Your task to perform on an android device: turn off location Image 0: 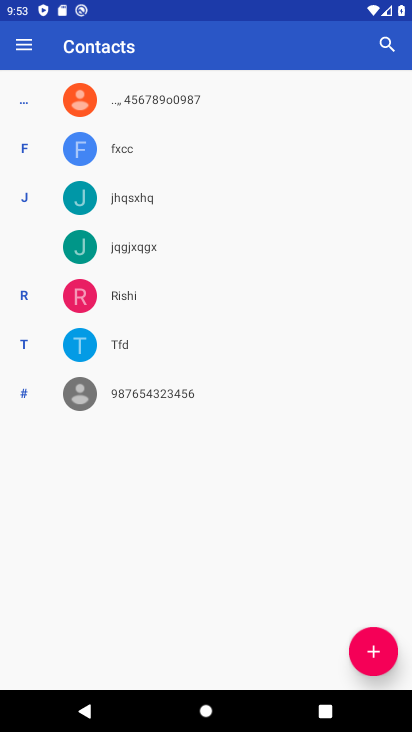
Step 0: press home button
Your task to perform on an android device: turn off location Image 1: 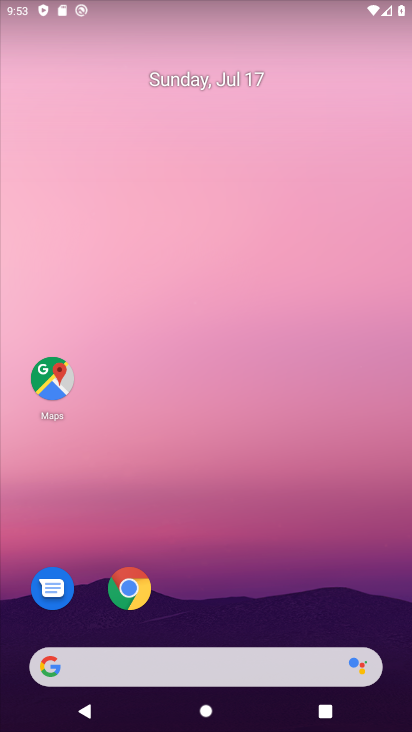
Step 1: drag from (308, 600) to (243, 168)
Your task to perform on an android device: turn off location Image 2: 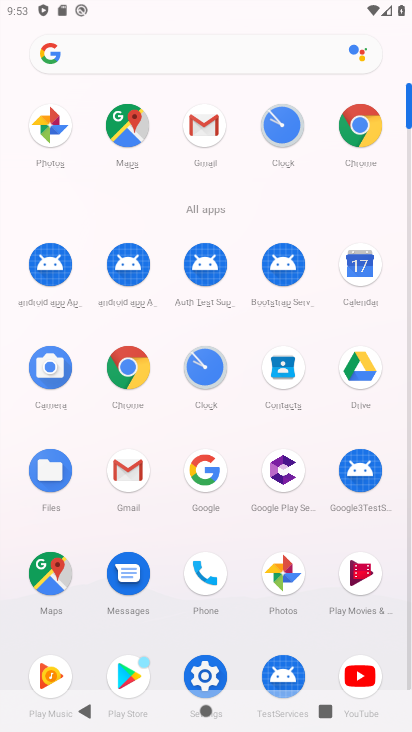
Step 2: click (210, 667)
Your task to perform on an android device: turn off location Image 3: 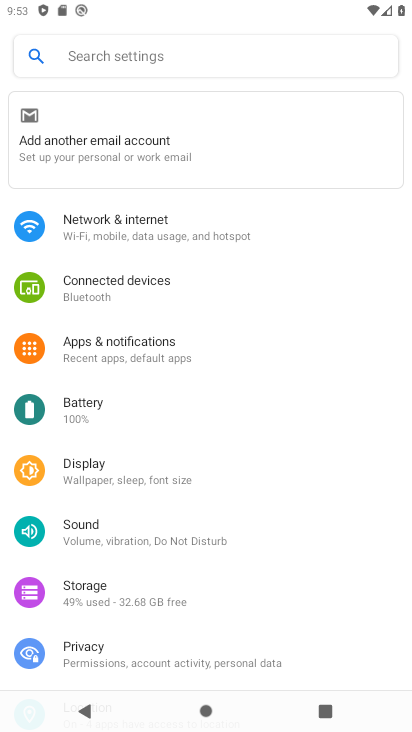
Step 3: drag from (278, 599) to (260, 232)
Your task to perform on an android device: turn off location Image 4: 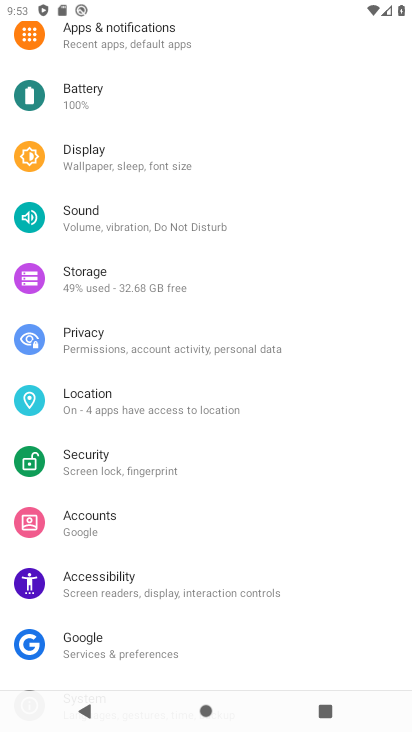
Step 4: click (249, 393)
Your task to perform on an android device: turn off location Image 5: 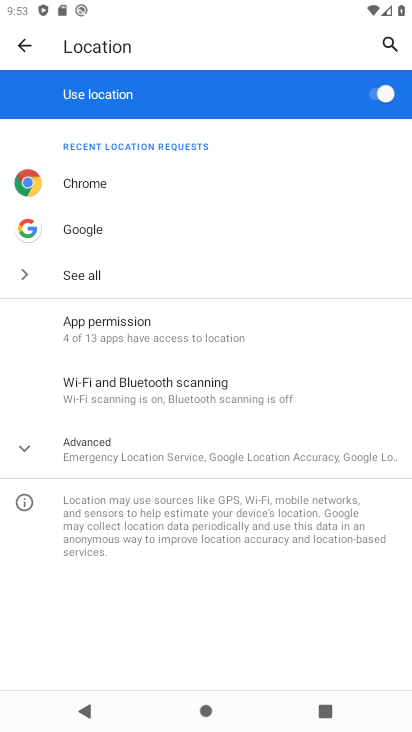
Step 5: click (377, 90)
Your task to perform on an android device: turn off location Image 6: 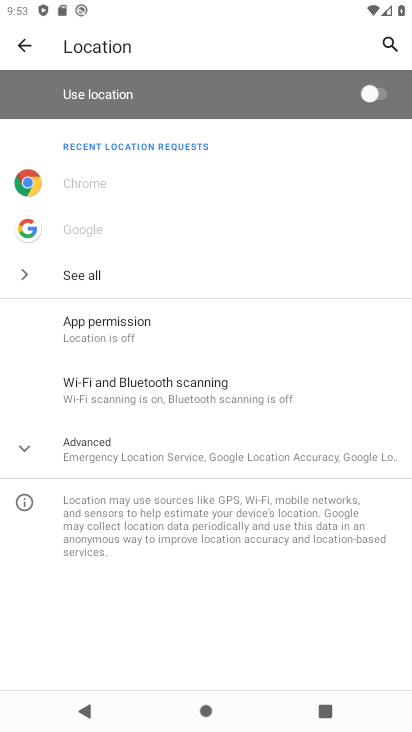
Step 6: task complete